Your task to perform on an android device: empty trash in the gmail app Image 0: 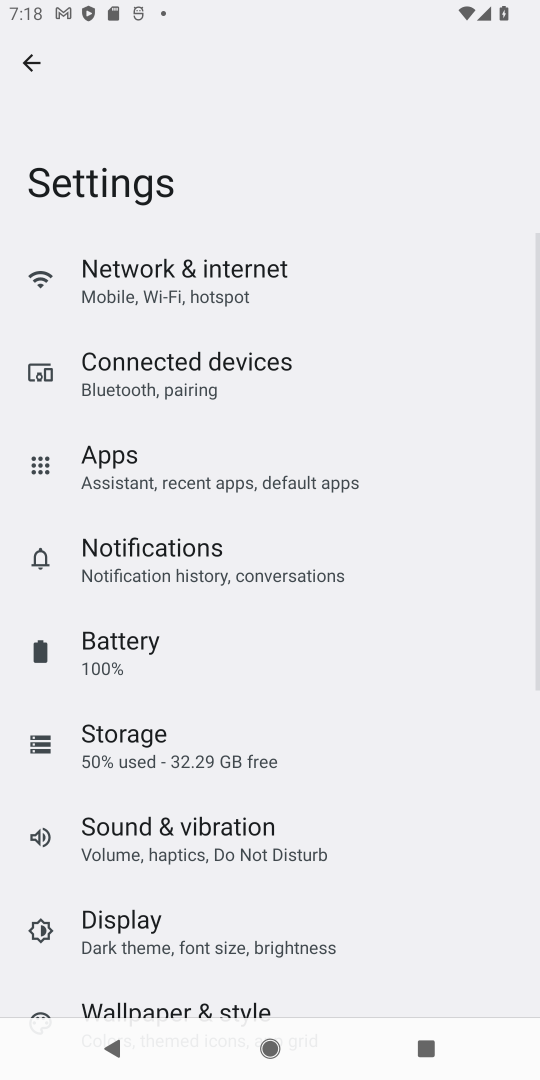
Step 0: press home button
Your task to perform on an android device: empty trash in the gmail app Image 1: 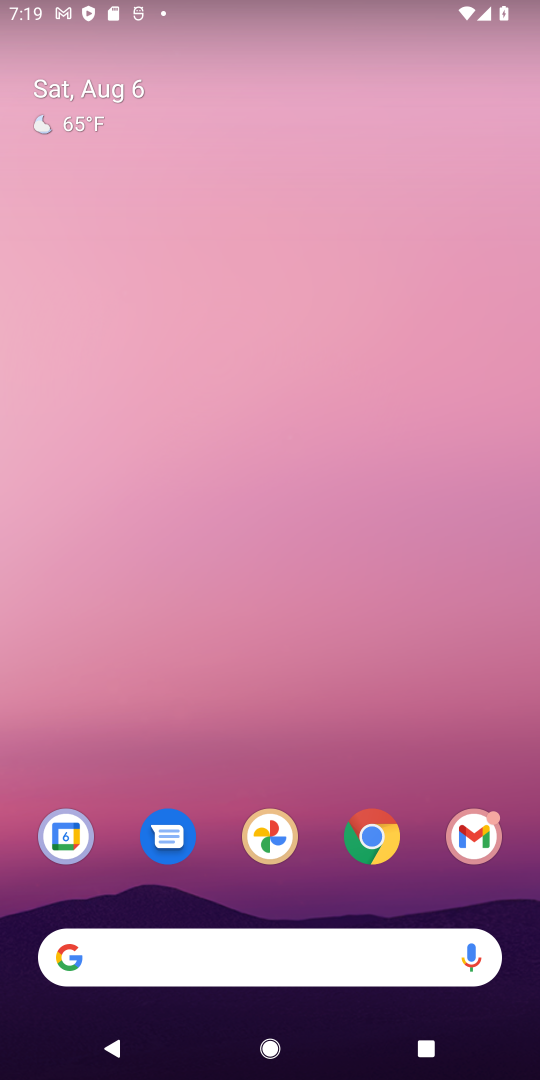
Step 1: drag from (429, 891) to (302, 59)
Your task to perform on an android device: empty trash in the gmail app Image 2: 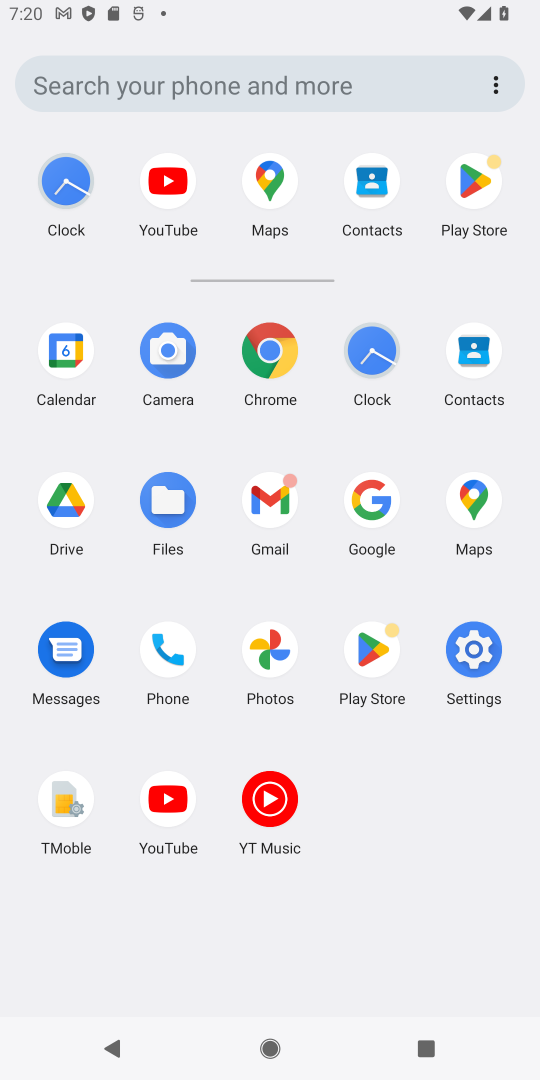
Step 2: click (295, 508)
Your task to perform on an android device: empty trash in the gmail app Image 3: 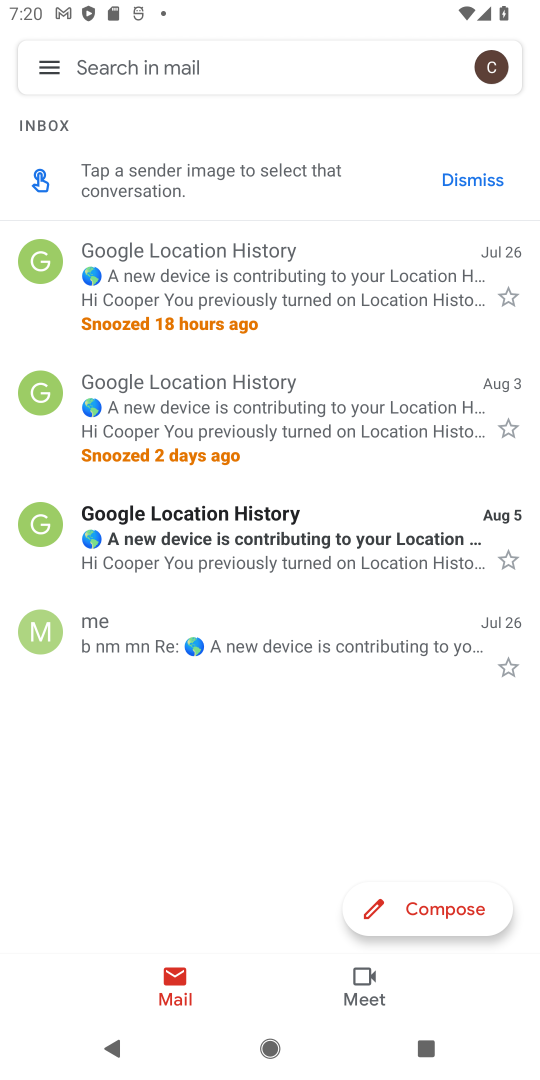
Step 3: click (53, 58)
Your task to perform on an android device: empty trash in the gmail app Image 4: 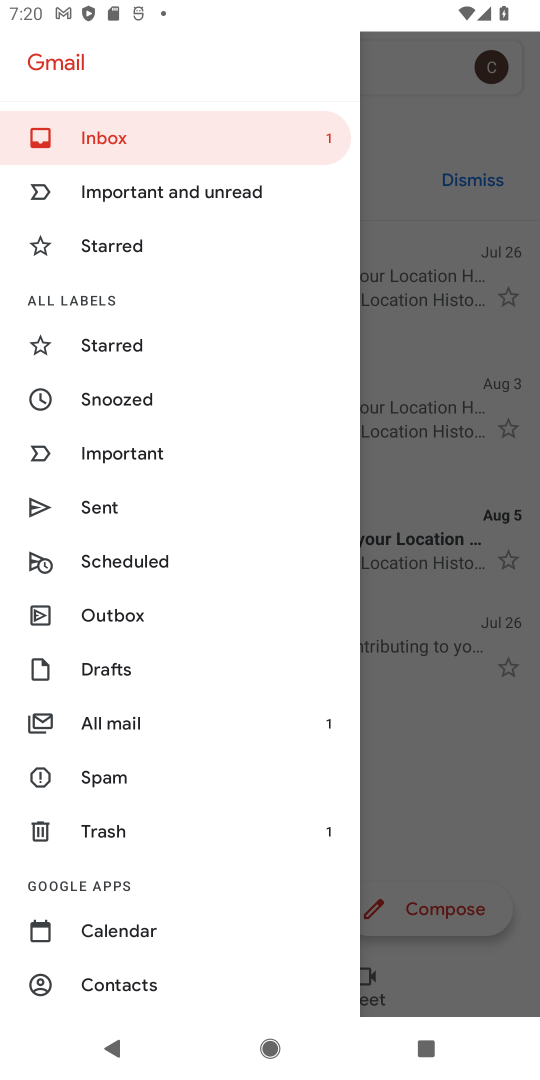
Step 4: click (97, 829)
Your task to perform on an android device: empty trash in the gmail app Image 5: 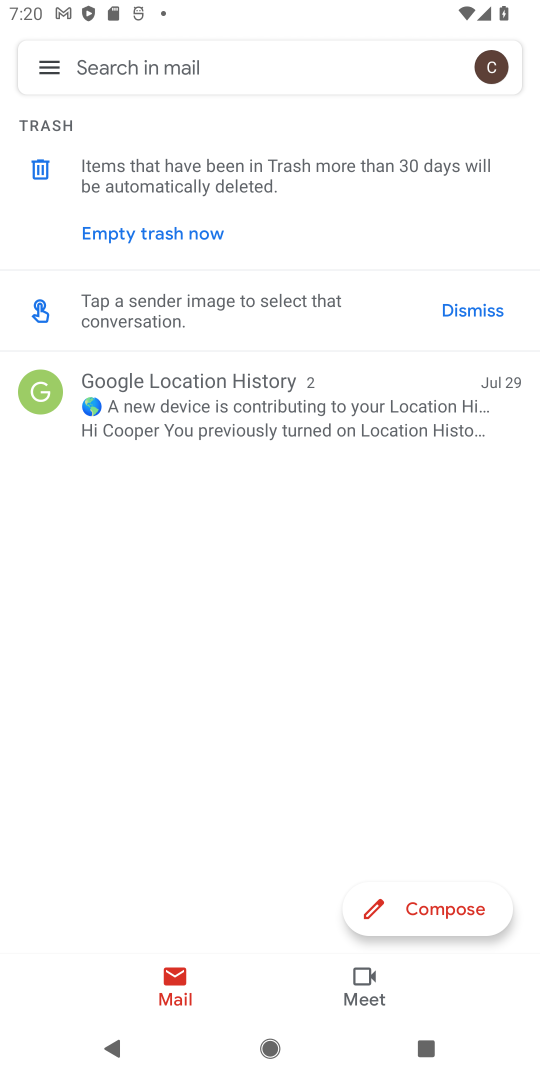
Step 5: click (134, 237)
Your task to perform on an android device: empty trash in the gmail app Image 6: 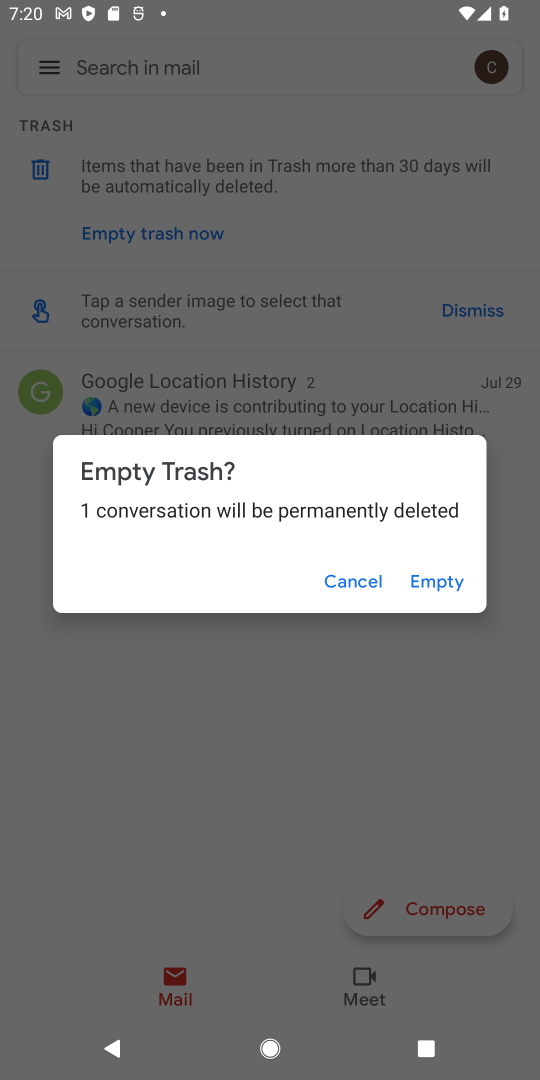
Step 6: click (436, 580)
Your task to perform on an android device: empty trash in the gmail app Image 7: 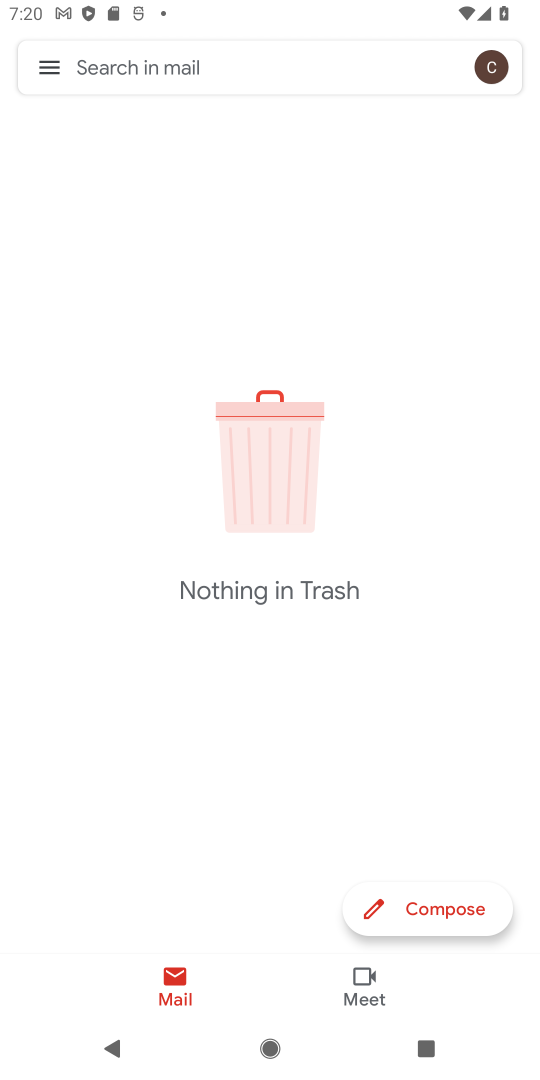
Step 7: task complete